Your task to perform on an android device: Open Chrome and go to settings Image 0: 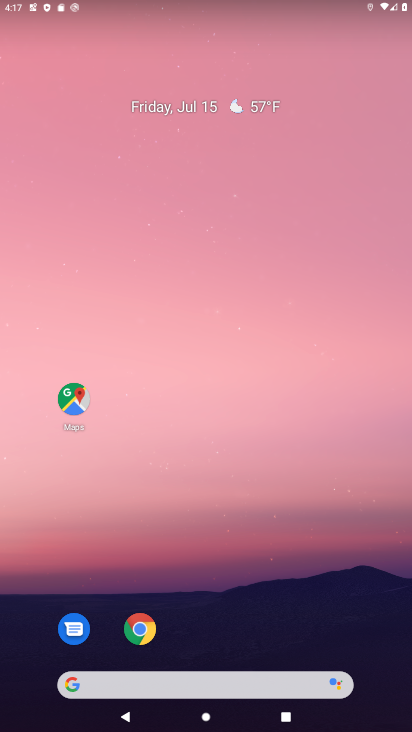
Step 0: press home button
Your task to perform on an android device: Open Chrome and go to settings Image 1: 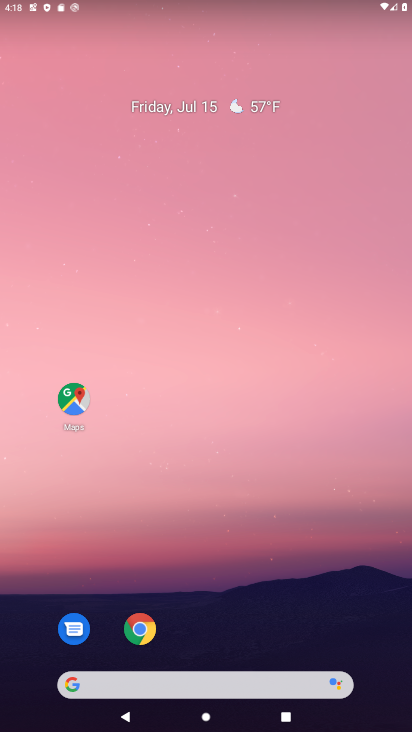
Step 1: drag from (263, 386) to (303, 0)
Your task to perform on an android device: Open Chrome and go to settings Image 2: 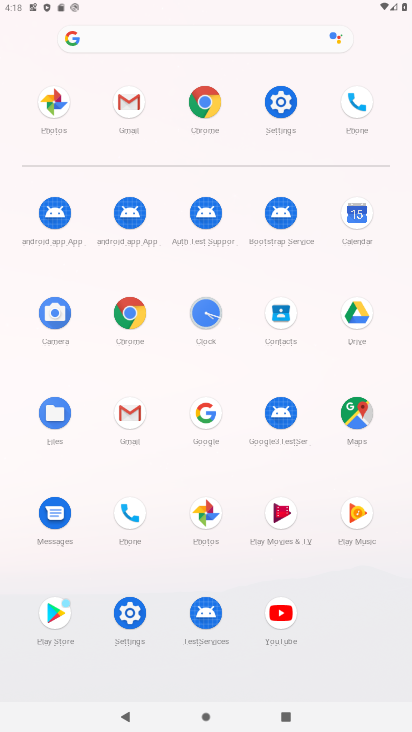
Step 2: click (205, 108)
Your task to perform on an android device: Open Chrome and go to settings Image 3: 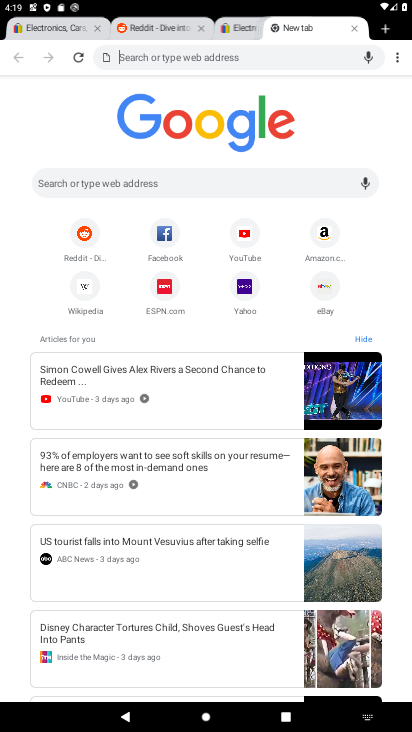
Step 3: task complete